Your task to perform on an android device: Open ESPN.com Image 0: 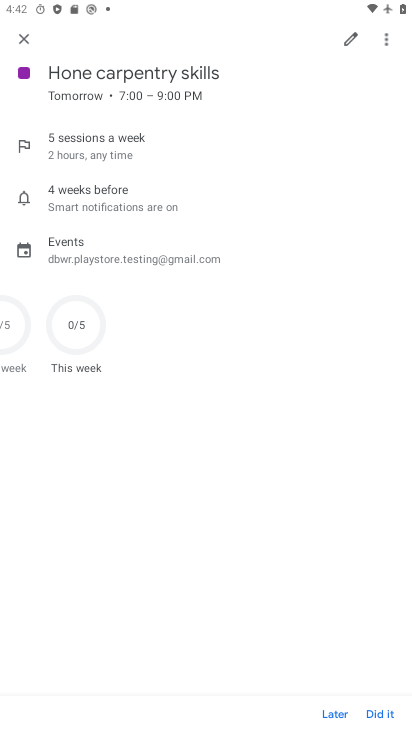
Step 0: press home button
Your task to perform on an android device: Open ESPN.com Image 1: 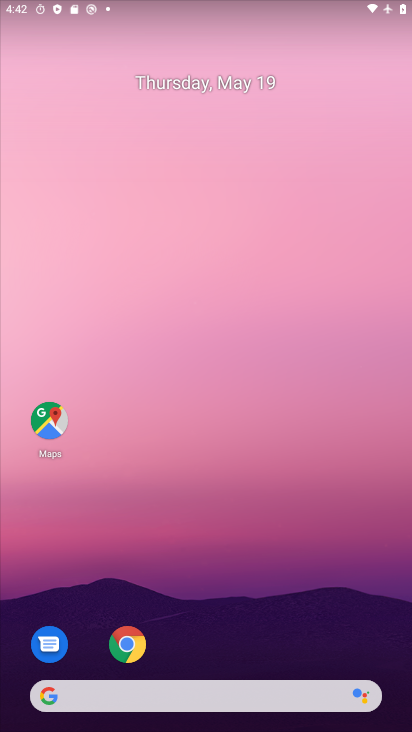
Step 1: click (127, 636)
Your task to perform on an android device: Open ESPN.com Image 2: 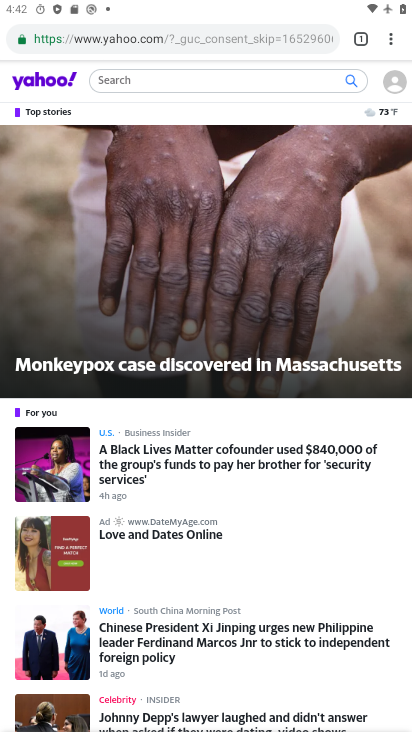
Step 2: click (358, 40)
Your task to perform on an android device: Open ESPN.com Image 3: 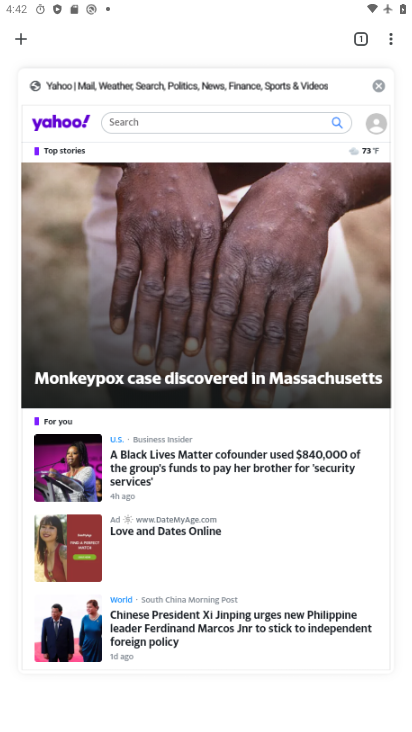
Step 3: click (382, 83)
Your task to perform on an android device: Open ESPN.com Image 4: 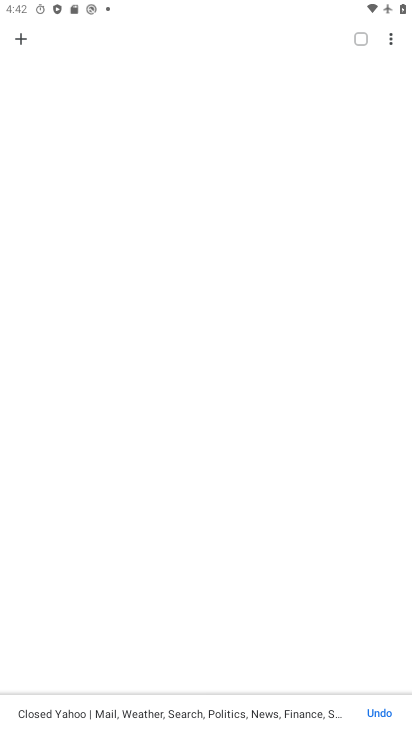
Step 4: click (21, 38)
Your task to perform on an android device: Open ESPN.com Image 5: 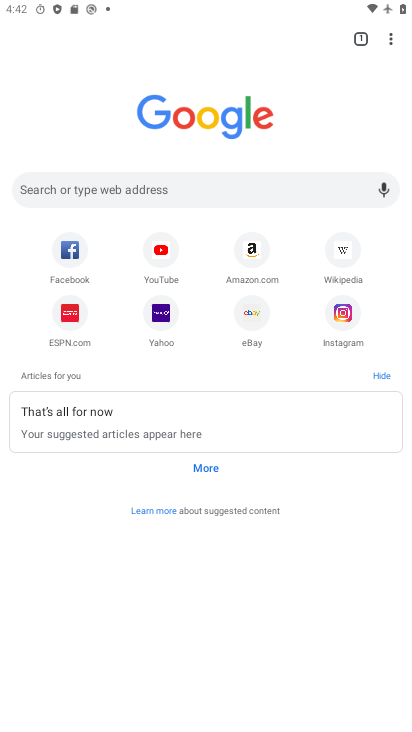
Step 5: click (64, 307)
Your task to perform on an android device: Open ESPN.com Image 6: 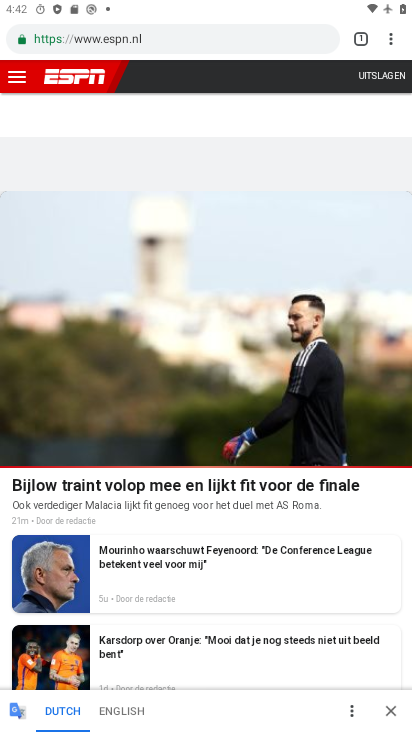
Step 6: task complete